Your task to perform on an android device: Search for a dining table on crateandbarrel.com Image 0: 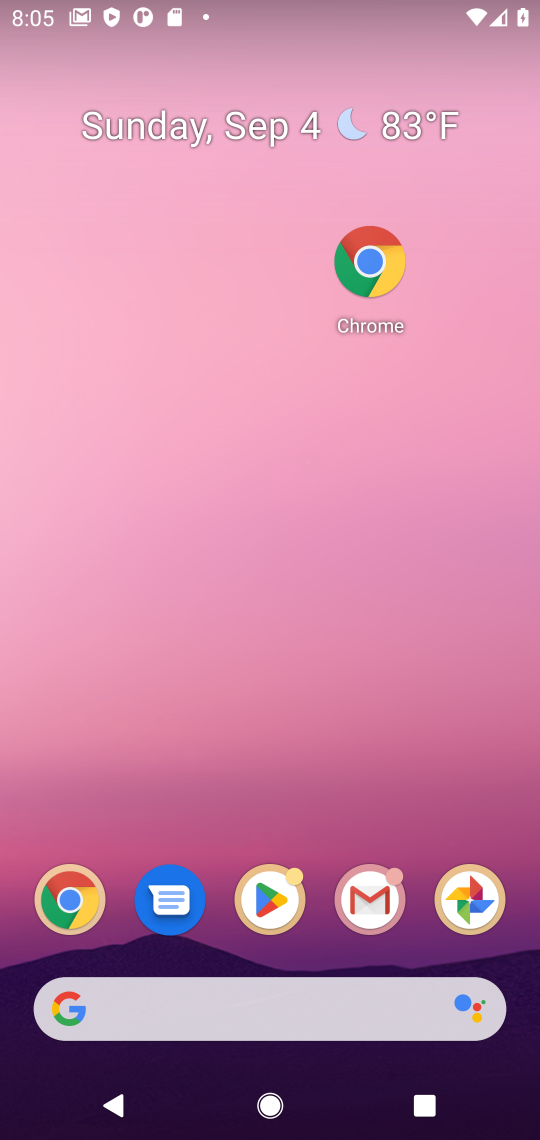
Step 0: click (370, 247)
Your task to perform on an android device: Search for a dining table on crateandbarrel.com Image 1: 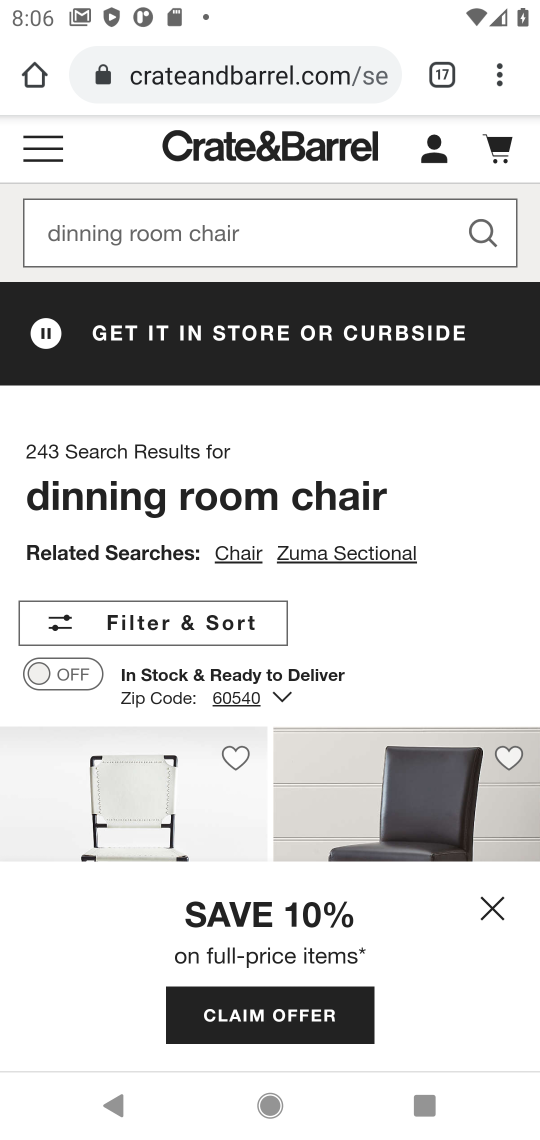
Step 1: click (291, 256)
Your task to perform on an android device: Search for a dining table on crateandbarrel.com Image 2: 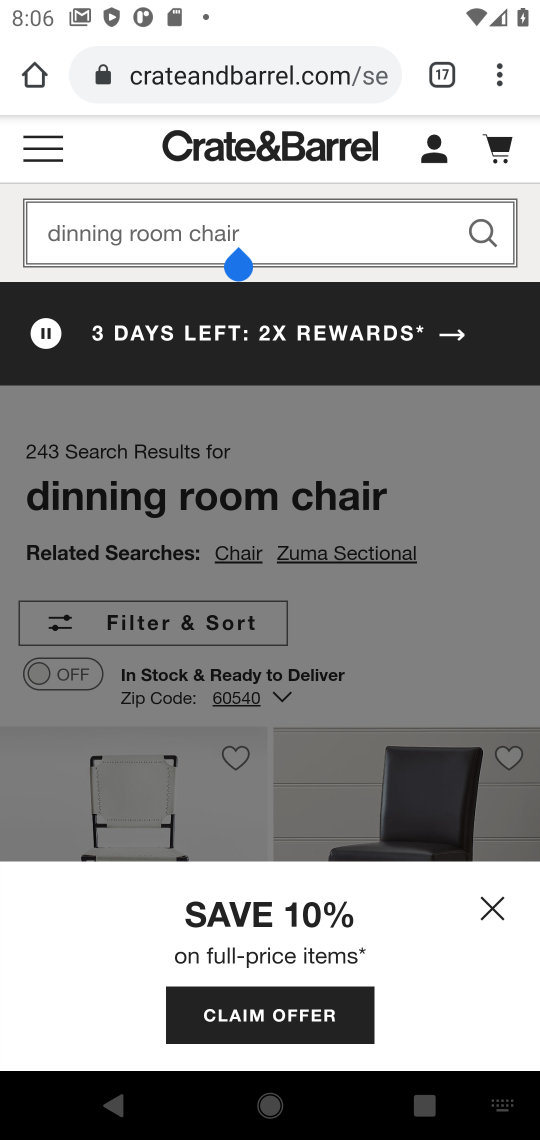
Step 2: click (476, 235)
Your task to perform on an android device: Search for a dining table on crateandbarrel.com Image 3: 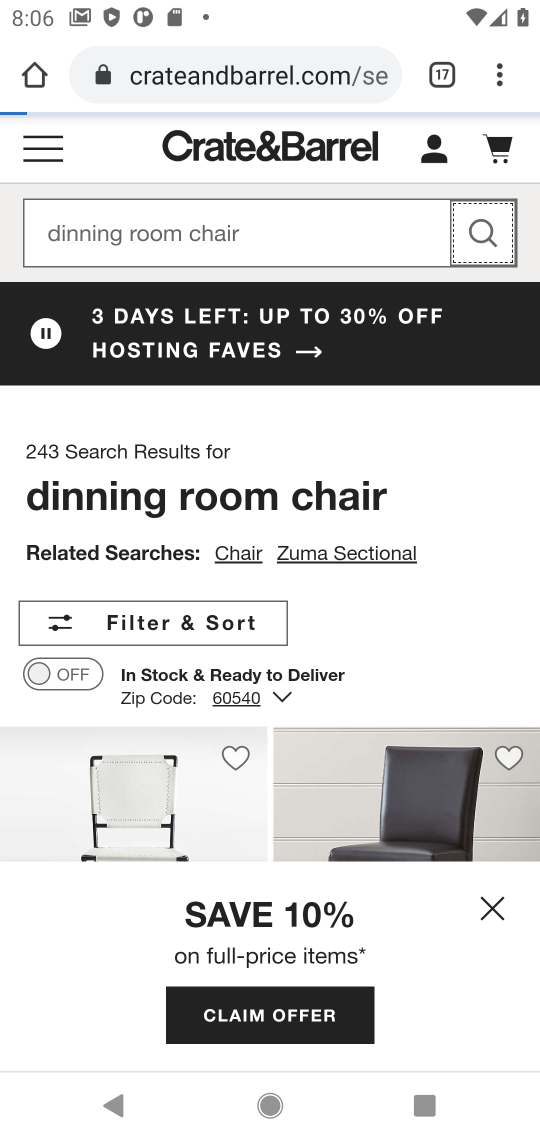
Step 3: click (261, 247)
Your task to perform on an android device: Search for a dining table on crateandbarrel.com Image 4: 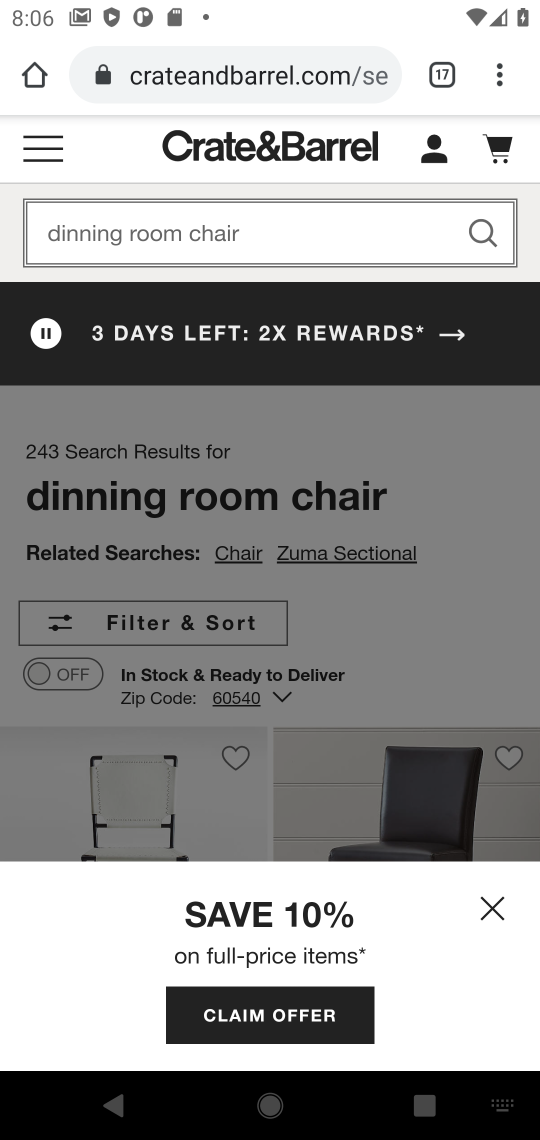
Step 4: click (328, 234)
Your task to perform on an android device: Search for a dining table on crateandbarrel.com Image 5: 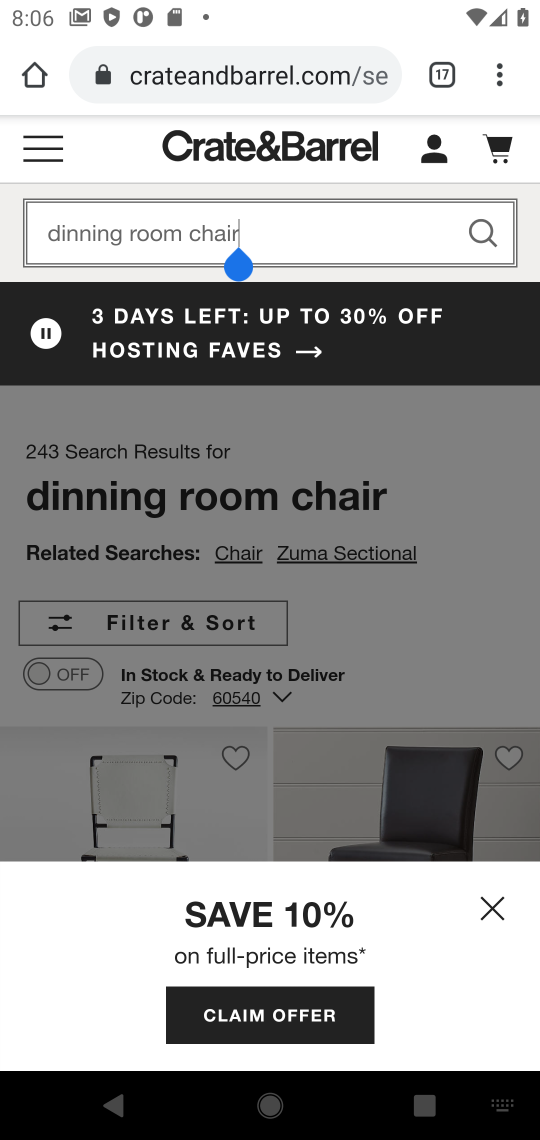
Step 5: click (490, 901)
Your task to perform on an android device: Search for a dining table on crateandbarrel.com Image 6: 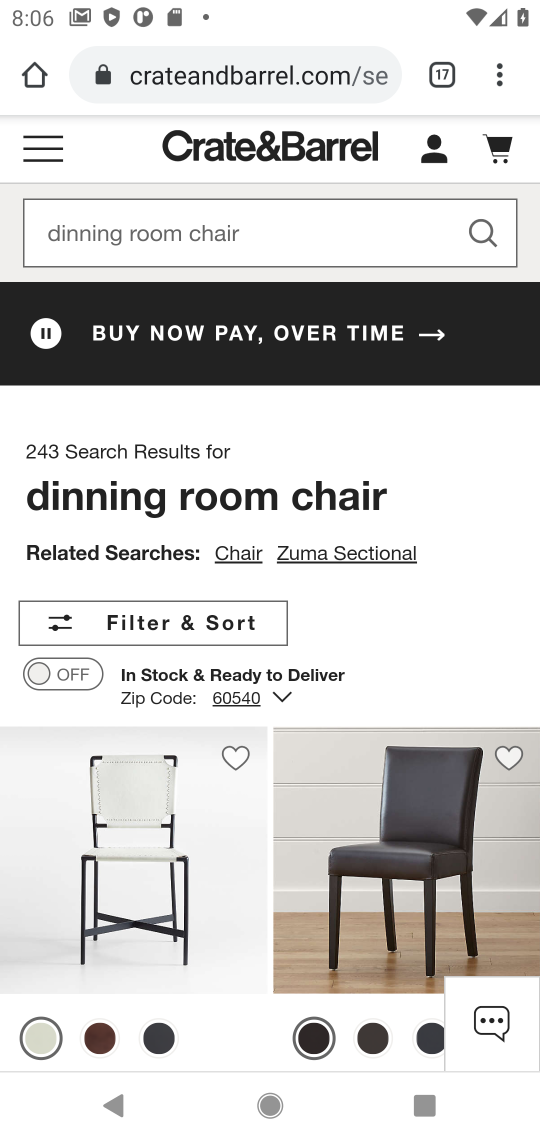
Step 6: click (56, 231)
Your task to perform on an android device: Search for a dining table on crateandbarrel.com Image 7: 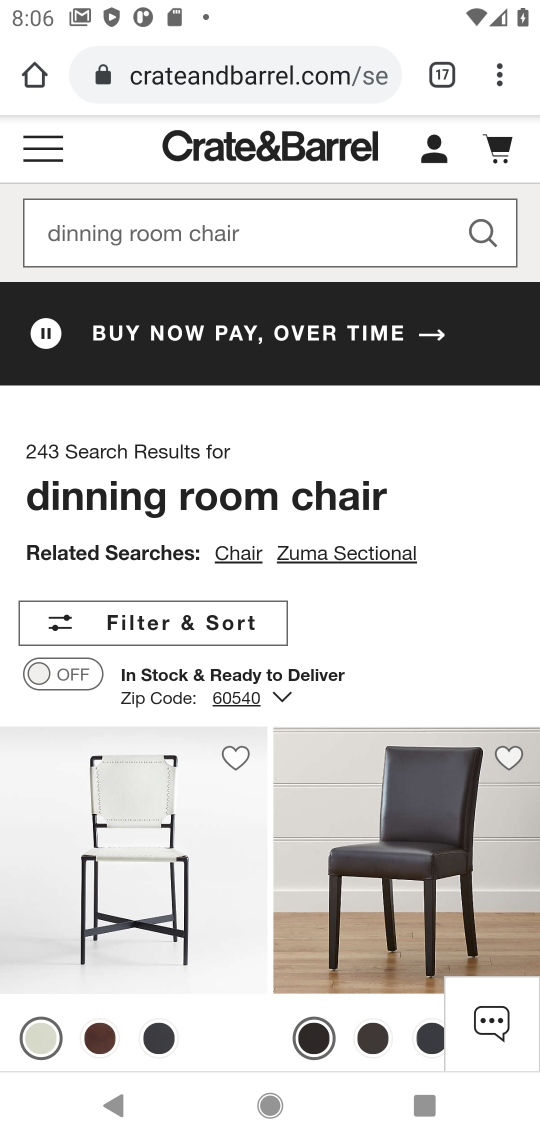
Step 7: click (56, 231)
Your task to perform on an android device: Search for a dining table on crateandbarrel.com Image 8: 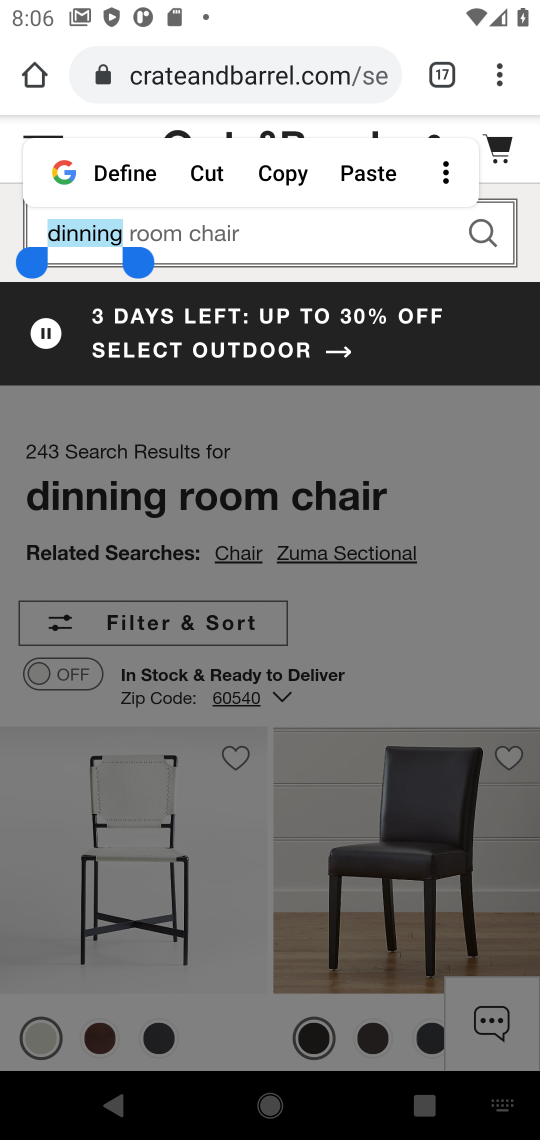
Step 8: click (201, 173)
Your task to perform on an android device: Search for a dining table on crateandbarrel.com Image 9: 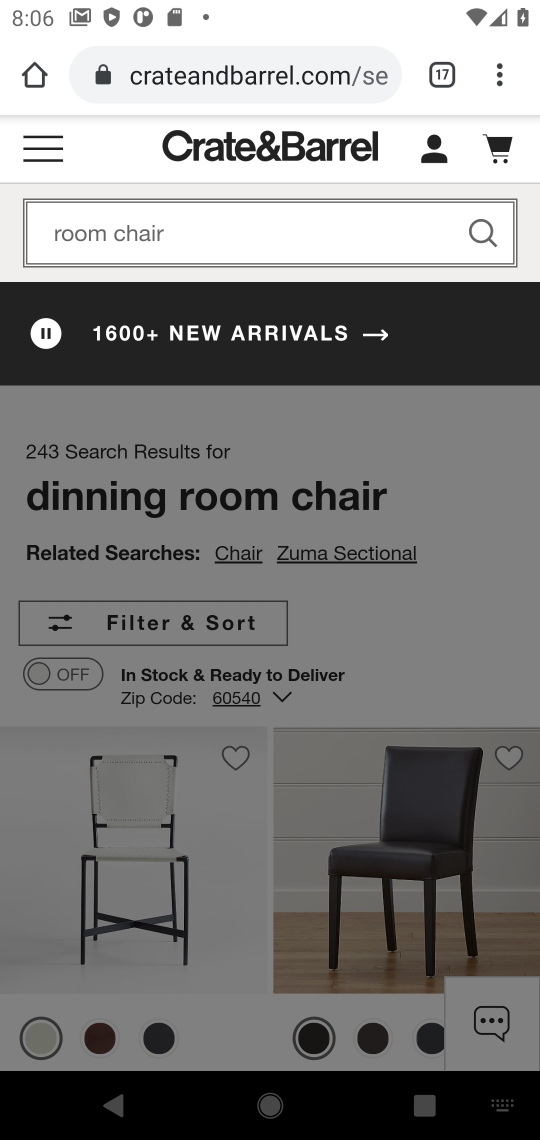
Step 9: click (151, 231)
Your task to perform on an android device: Search for a dining table on crateandbarrel.com Image 10: 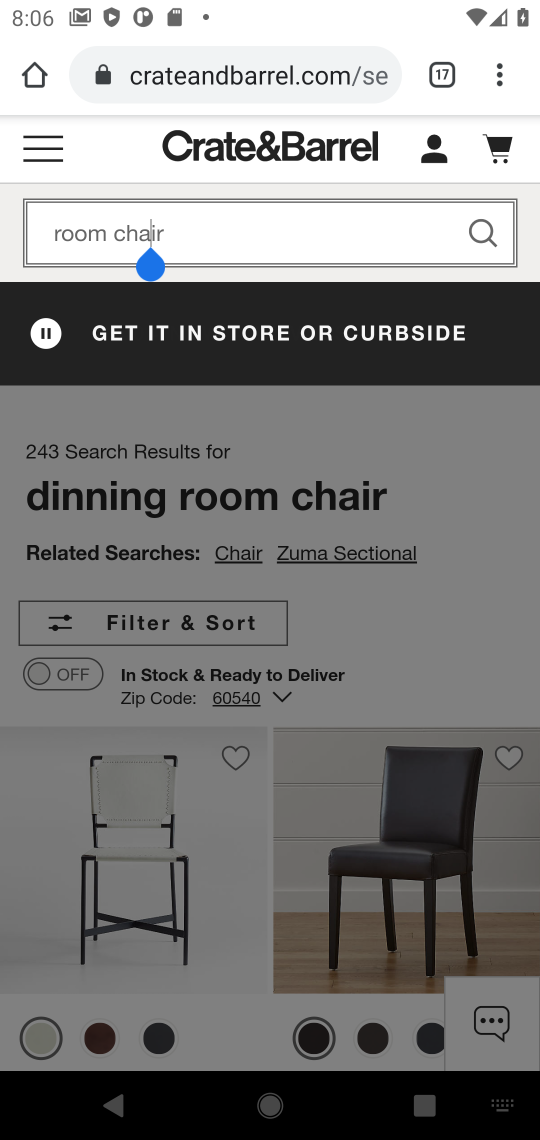
Step 10: click (151, 231)
Your task to perform on an android device: Search for a dining table on crateandbarrel.com Image 11: 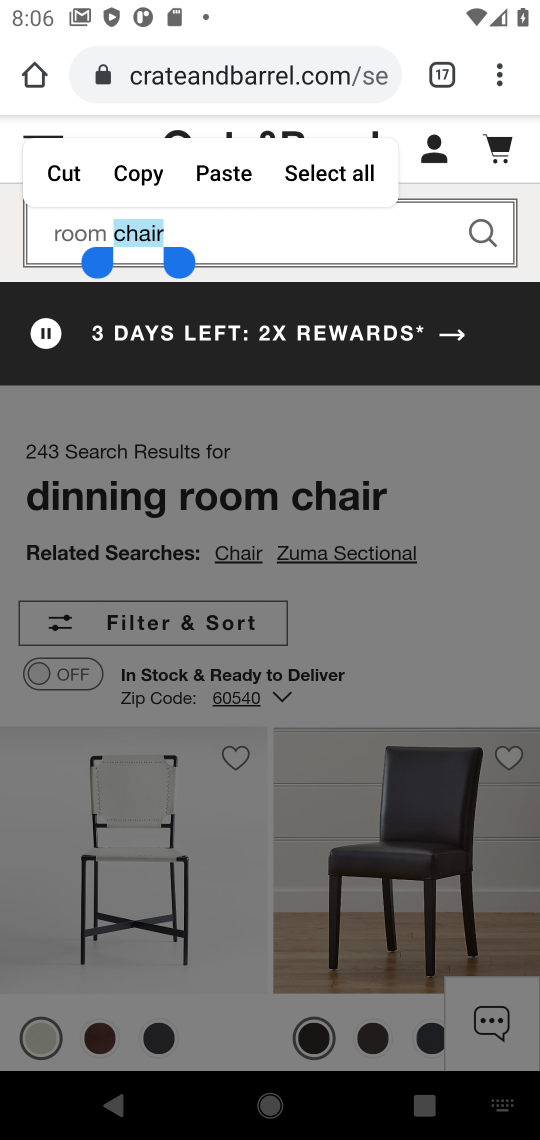
Step 11: click (72, 179)
Your task to perform on an android device: Search for a dining table on crateandbarrel.com Image 12: 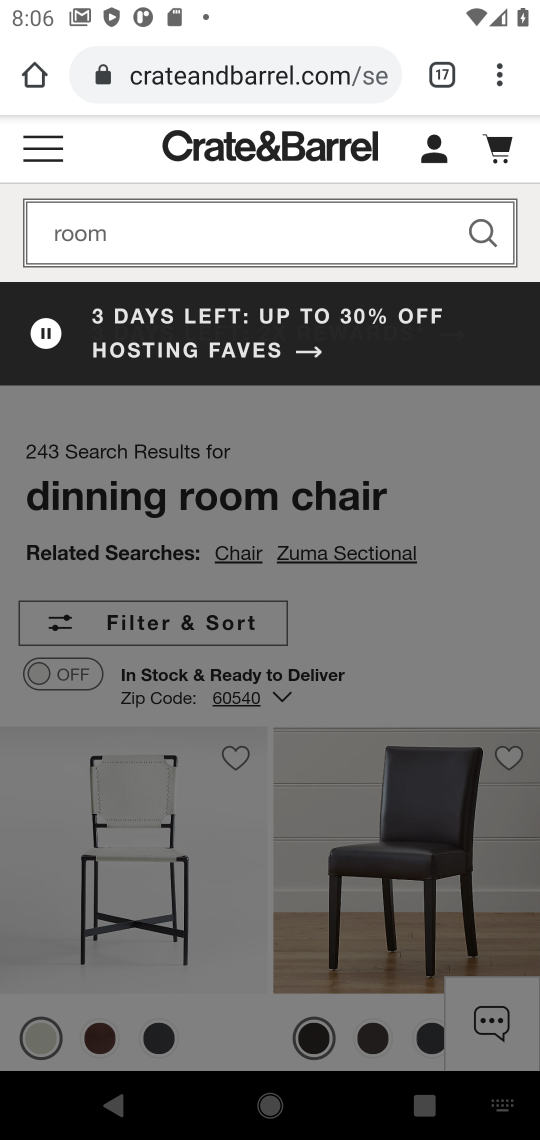
Step 12: click (67, 243)
Your task to perform on an android device: Search for a dining table on crateandbarrel.com Image 13: 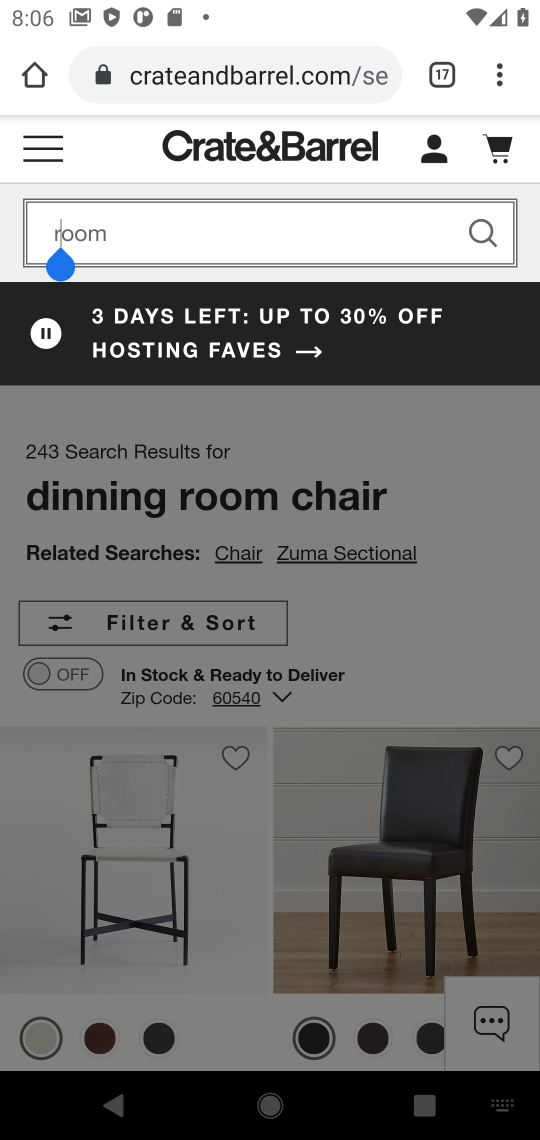
Step 13: click (67, 243)
Your task to perform on an android device: Search for a dining table on crateandbarrel.com Image 14: 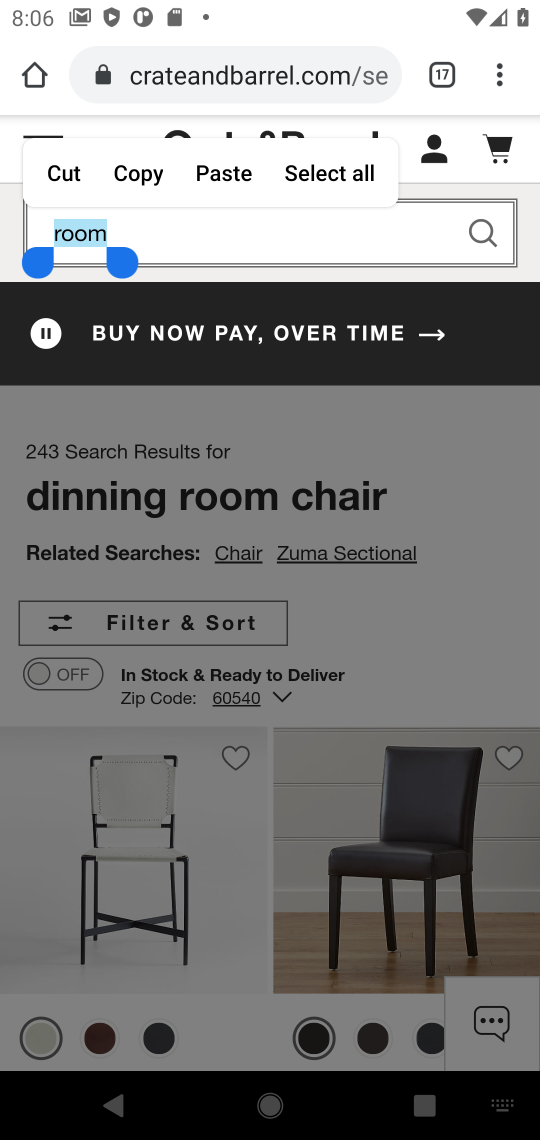
Step 14: click (68, 166)
Your task to perform on an android device: Search for a dining table on crateandbarrel.com Image 15: 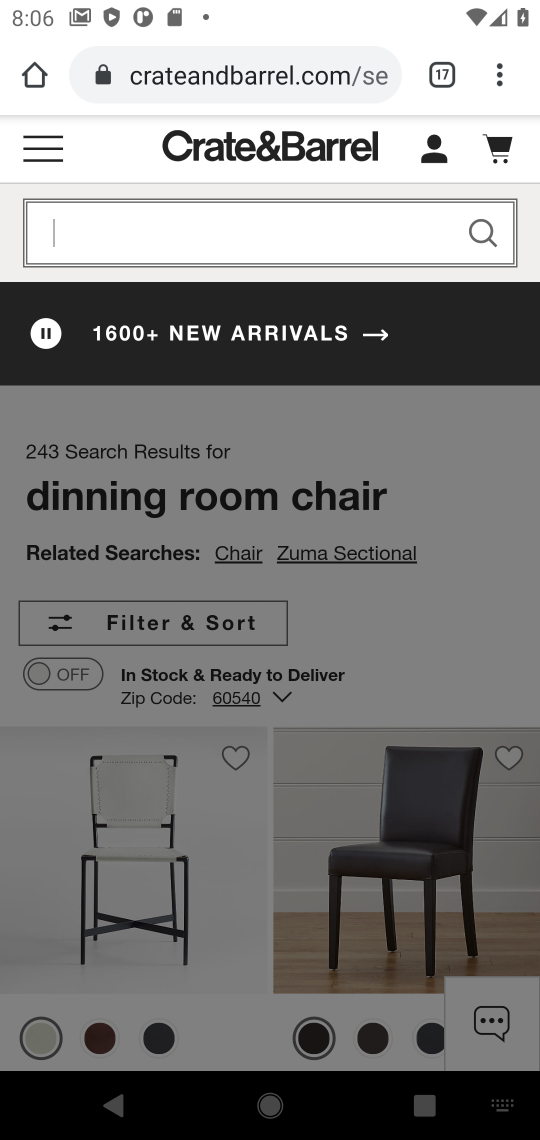
Step 15: type "dining table"
Your task to perform on an android device: Search for a dining table on crateandbarrel.com Image 16: 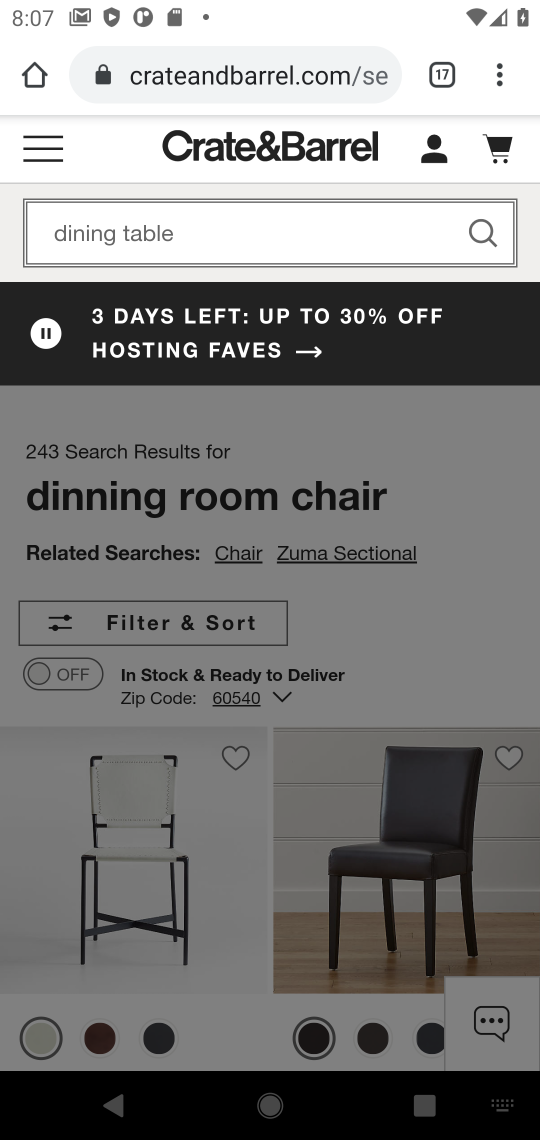
Step 16: click (482, 234)
Your task to perform on an android device: Search for a dining table on crateandbarrel.com Image 17: 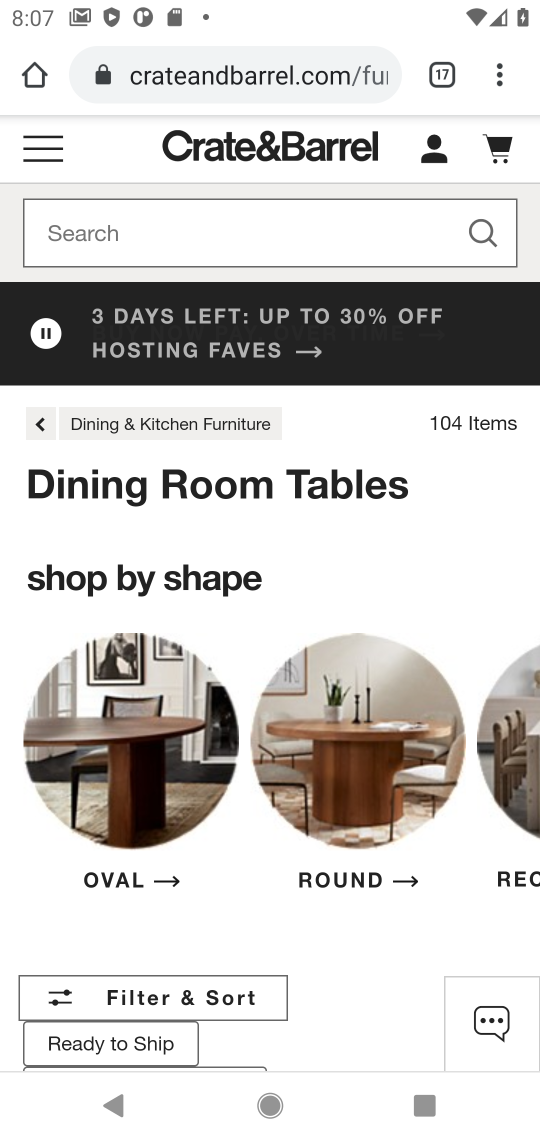
Step 17: task complete